Your task to perform on an android device: Go to battery settings Image 0: 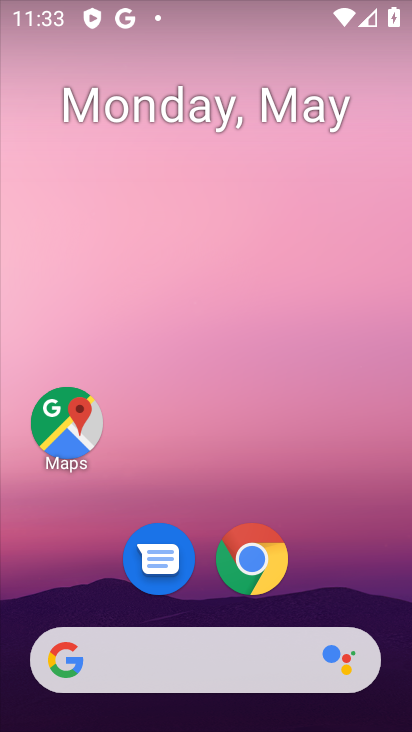
Step 0: drag from (380, 562) to (271, 74)
Your task to perform on an android device: Go to battery settings Image 1: 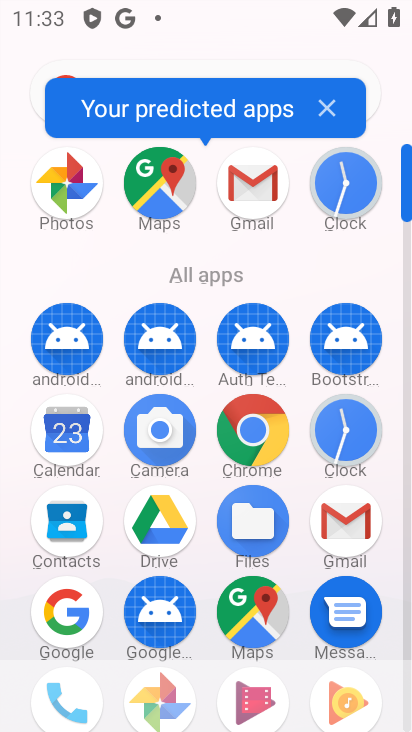
Step 1: click (409, 428)
Your task to perform on an android device: Go to battery settings Image 2: 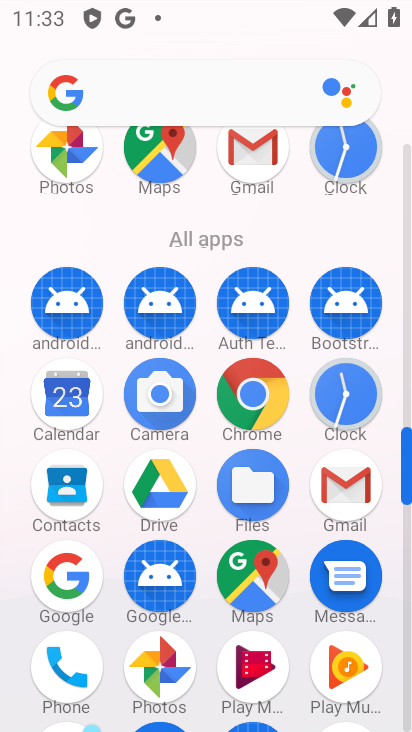
Step 2: click (406, 570)
Your task to perform on an android device: Go to battery settings Image 3: 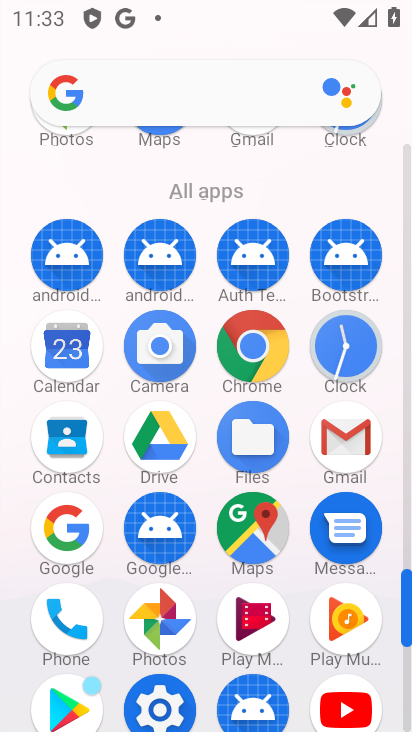
Step 3: click (403, 716)
Your task to perform on an android device: Go to battery settings Image 4: 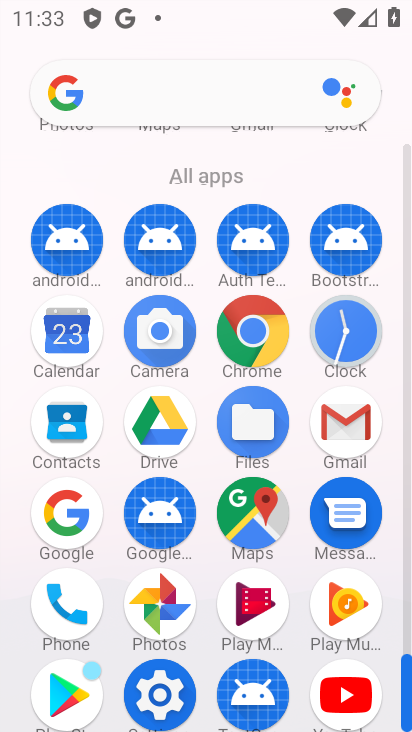
Step 4: click (137, 691)
Your task to perform on an android device: Go to battery settings Image 5: 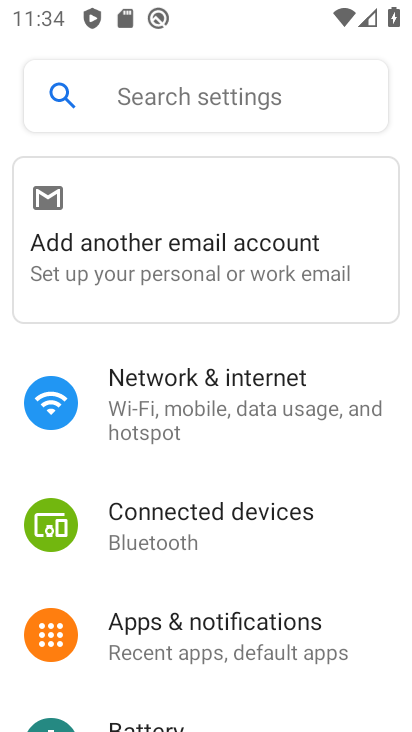
Step 5: click (141, 704)
Your task to perform on an android device: Go to battery settings Image 6: 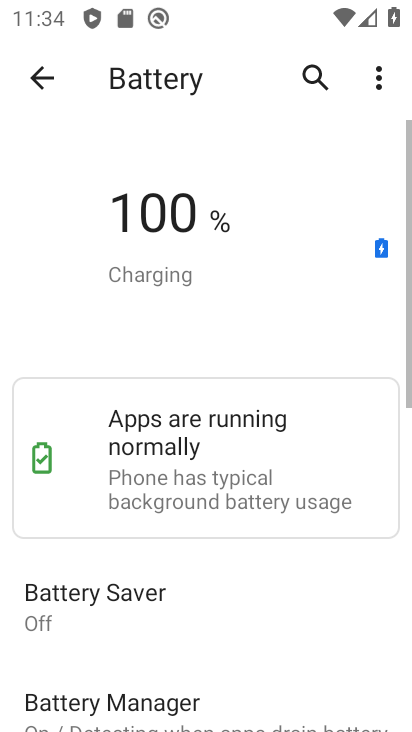
Step 6: task complete